Your task to perform on an android device: see sites visited before in the chrome app Image 0: 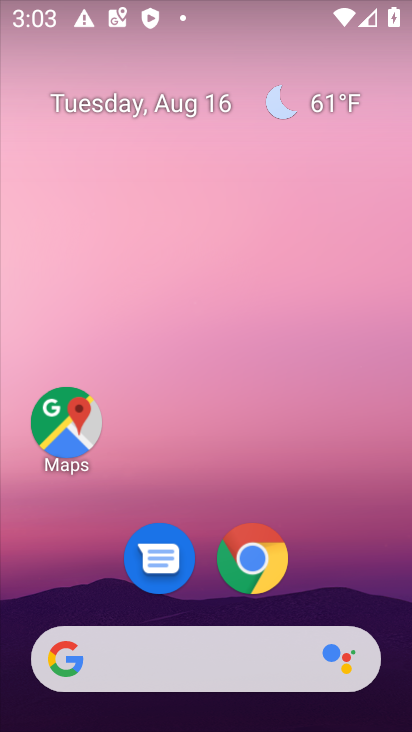
Step 0: click (253, 559)
Your task to perform on an android device: see sites visited before in the chrome app Image 1: 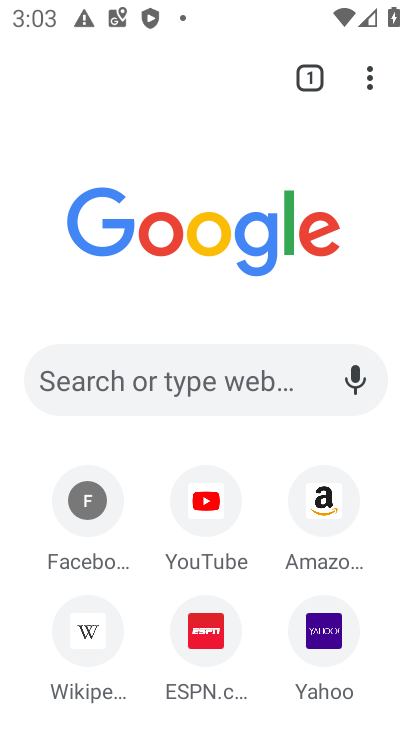
Step 1: click (362, 86)
Your task to perform on an android device: see sites visited before in the chrome app Image 2: 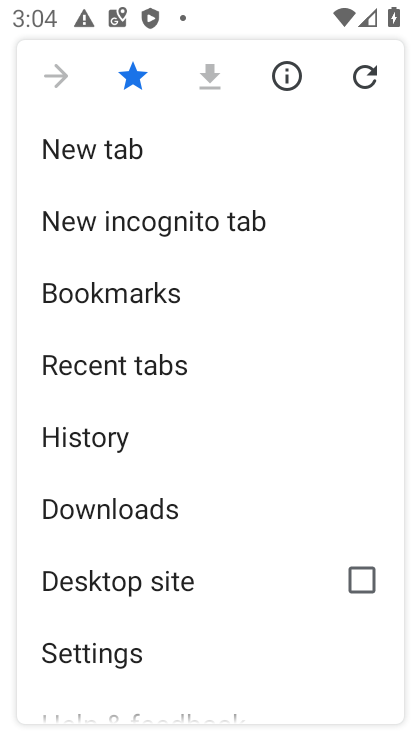
Step 2: click (92, 429)
Your task to perform on an android device: see sites visited before in the chrome app Image 3: 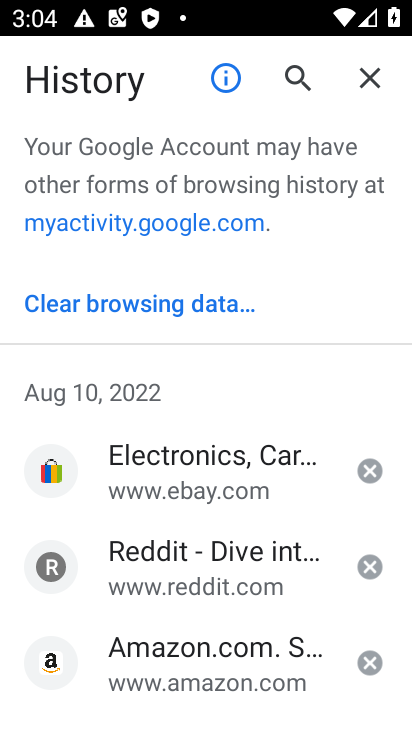
Step 3: task complete